Your task to perform on an android device: delete a single message in the gmail app Image 0: 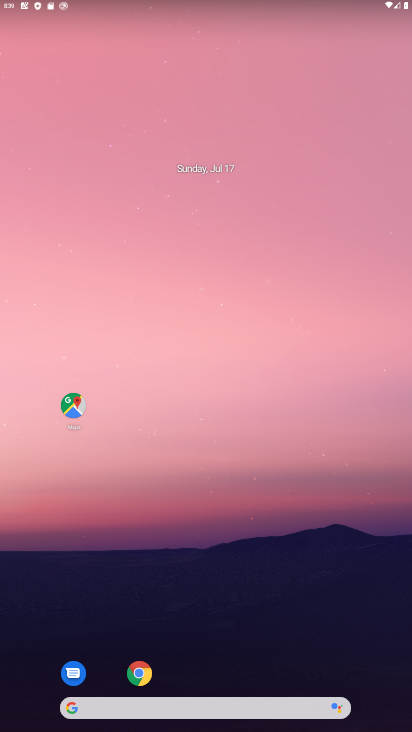
Step 0: drag from (297, 641) to (262, 39)
Your task to perform on an android device: delete a single message in the gmail app Image 1: 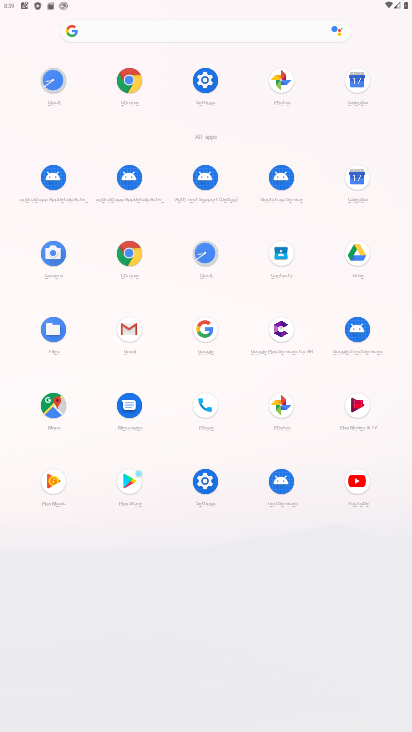
Step 1: click (122, 323)
Your task to perform on an android device: delete a single message in the gmail app Image 2: 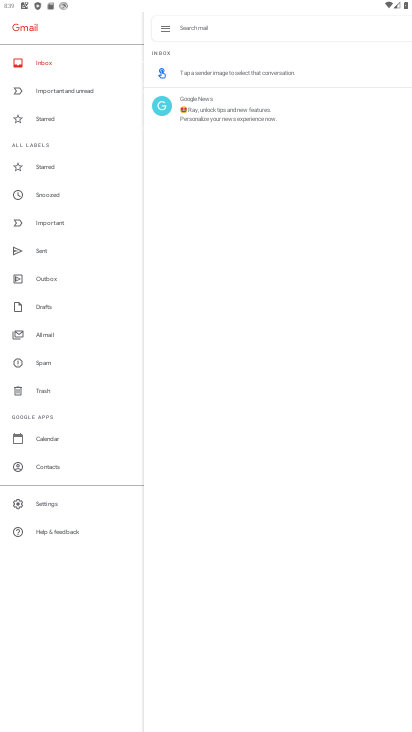
Step 2: click (239, 101)
Your task to perform on an android device: delete a single message in the gmail app Image 3: 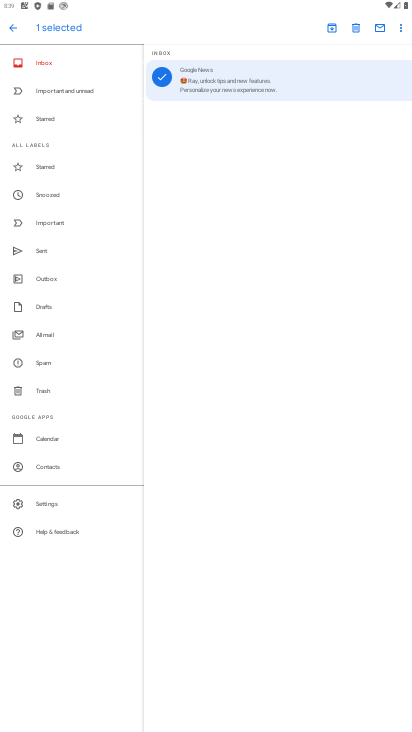
Step 3: click (360, 28)
Your task to perform on an android device: delete a single message in the gmail app Image 4: 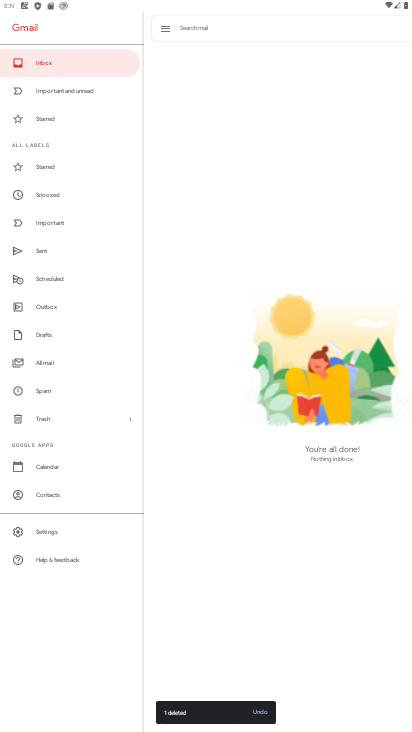
Step 4: task complete